Your task to perform on an android device: change the clock style Image 0: 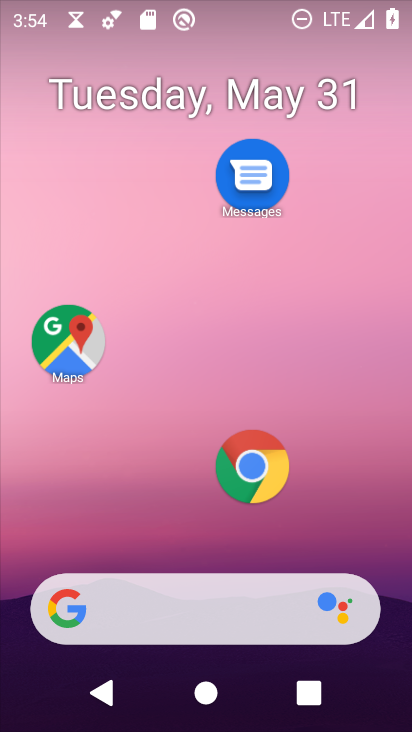
Step 0: drag from (156, 481) to (183, 53)
Your task to perform on an android device: change the clock style Image 1: 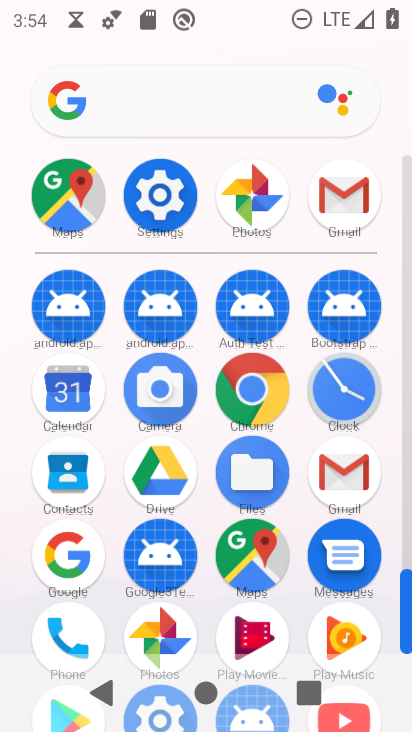
Step 1: click (335, 395)
Your task to perform on an android device: change the clock style Image 2: 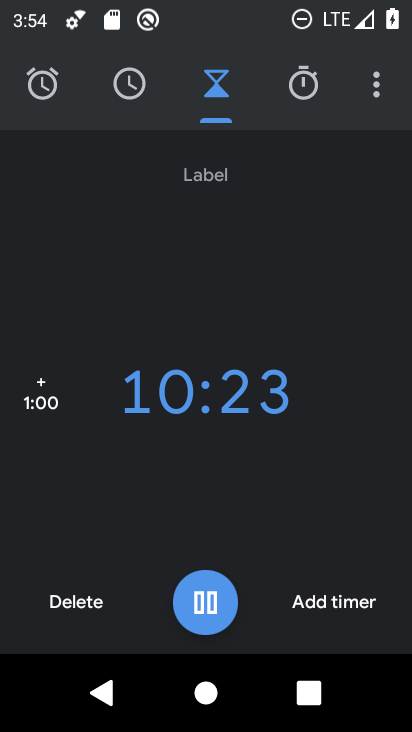
Step 2: click (375, 80)
Your task to perform on an android device: change the clock style Image 3: 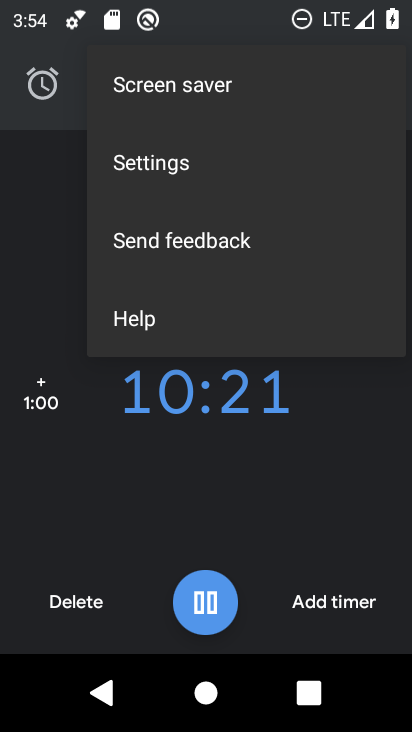
Step 3: click (172, 169)
Your task to perform on an android device: change the clock style Image 4: 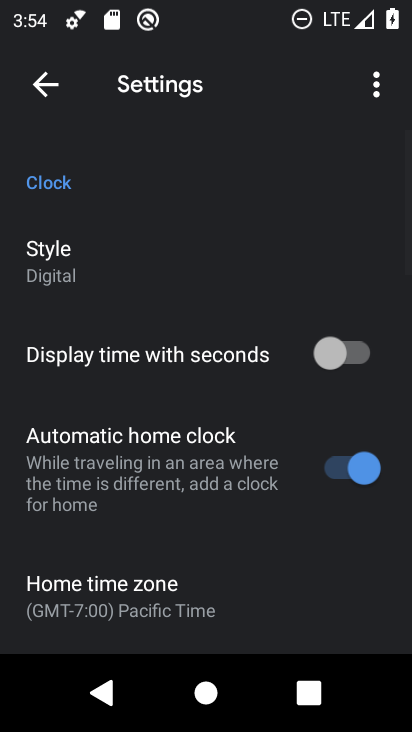
Step 4: click (86, 275)
Your task to perform on an android device: change the clock style Image 5: 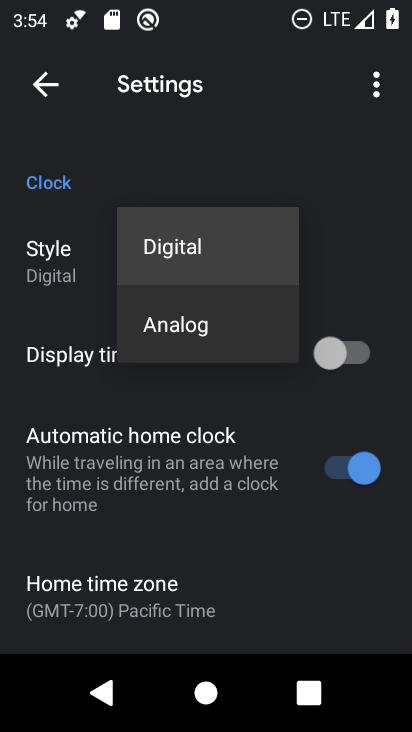
Step 5: click (158, 333)
Your task to perform on an android device: change the clock style Image 6: 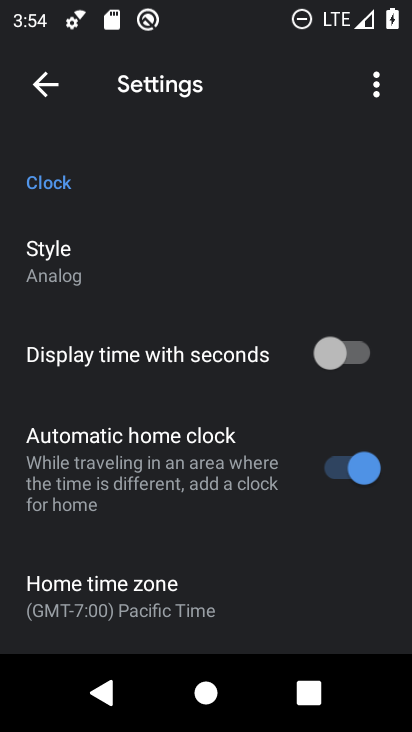
Step 6: task complete